Your task to perform on an android device: Check the news Image 0: 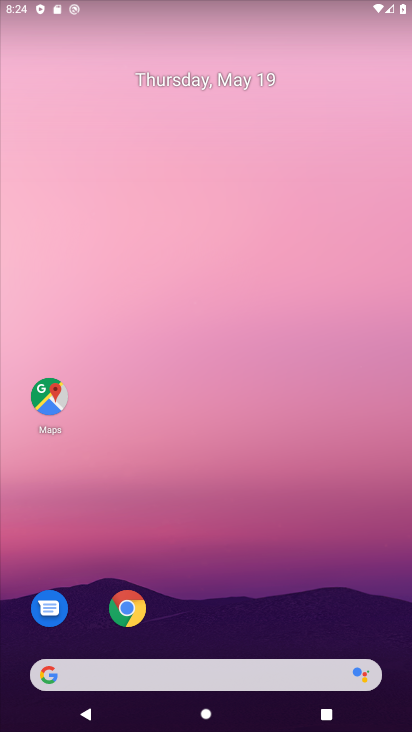
Step 0: drag from (299, 703) to (165, 38)
Your task to perform on an android device: Check the news Image 1: 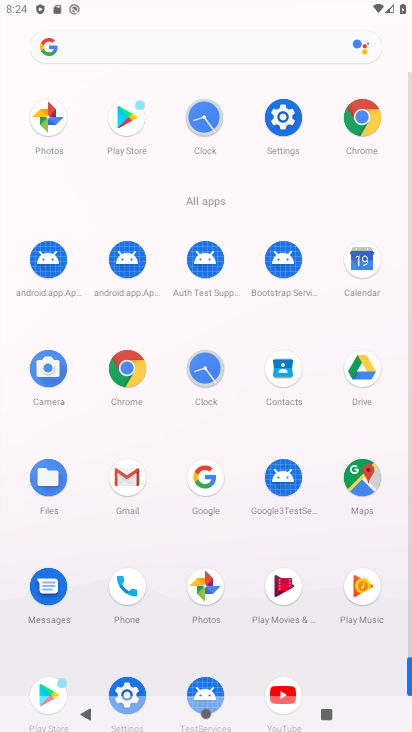
Step 1: press back button
Your task to perform on an android device: Check the news Image 2: 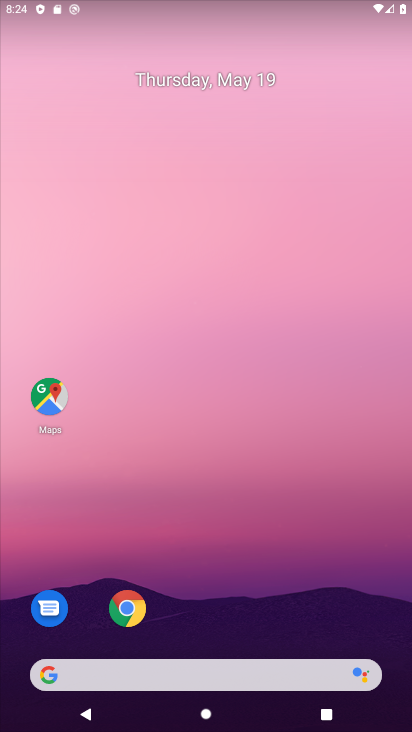
Step 2: drag from (23, 227) to (376, 402)
Your task to perform on an android device: Check the news Image 3: 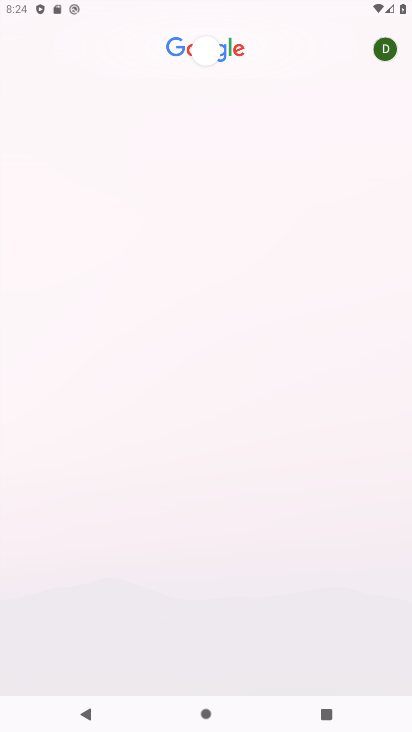
Step 3: drag from (5, 208) to (403, 518)
Your task to perform on an android device: Check the news Image 4: 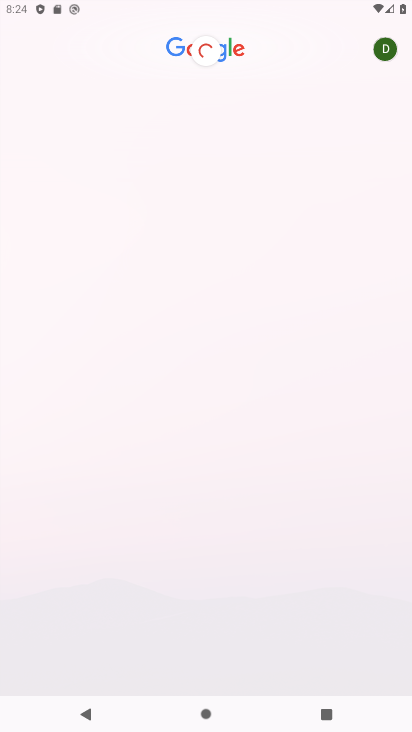
Step 4: drag from (241, 358) to (374, 419)
Your task to perform on an android device: Check the news Image 5: 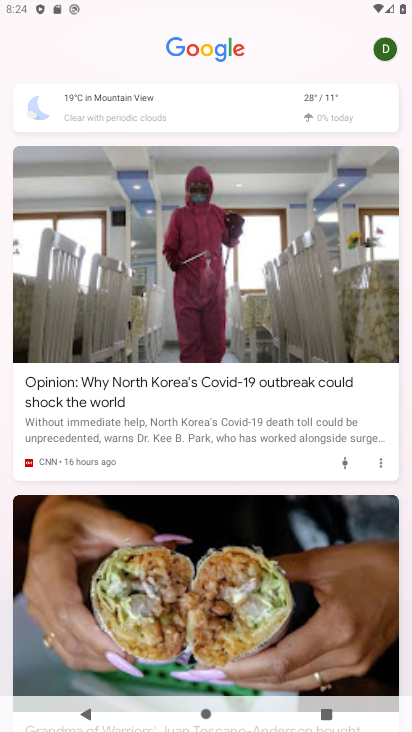
Step 5: drag from (161, 530) to (139, 36)
Your task to perform on an android device: Check the news Image 6: 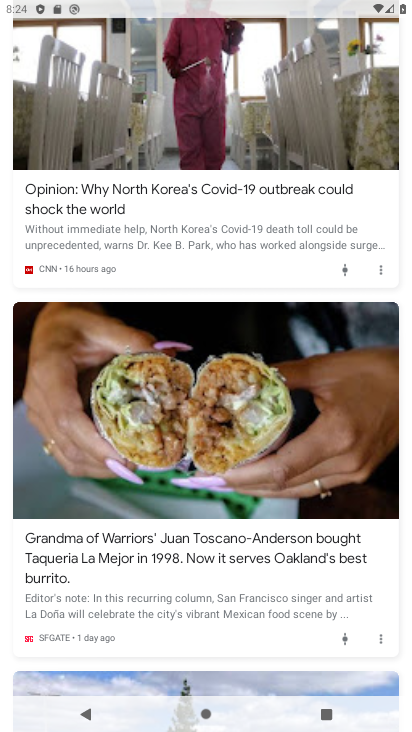
Step 6: drag from (182, 355) to (182, 138)
Your task to perform on an android device: Check the news Image 7: 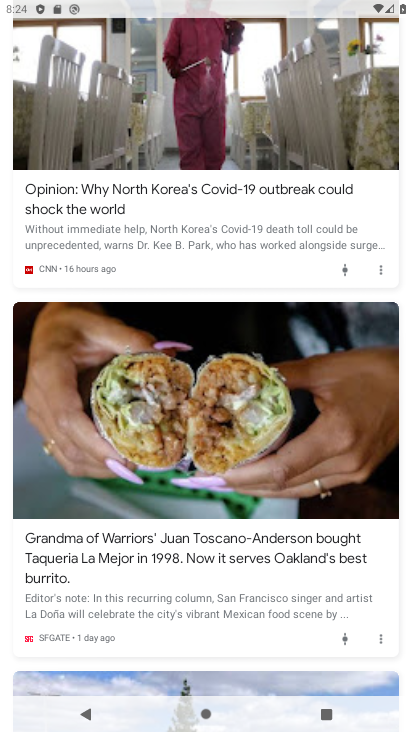
Step 7: drag from (240, 592) to (197, 234)
Your task to perform on an android device: Check the news Image 8: 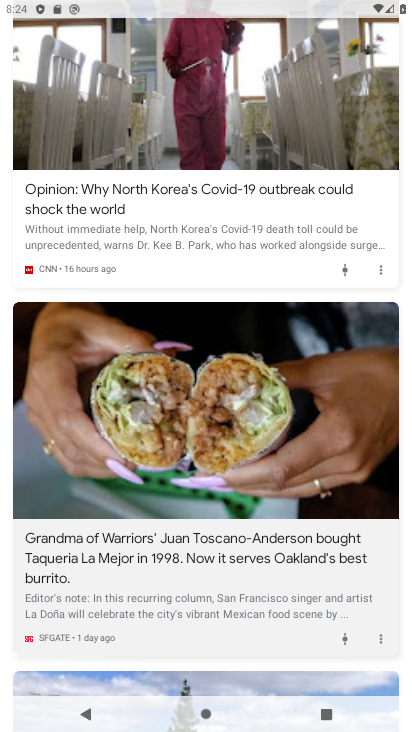
Step 8: drag from (240, 582) to (163, 249)
Your task to perform on an android device: Check the news Image 9: 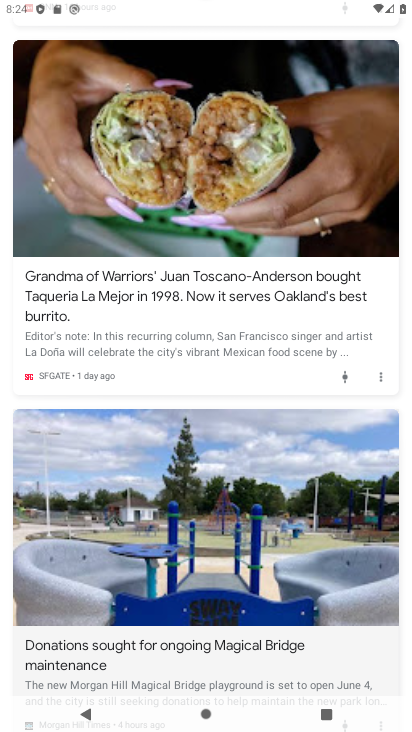
Step 9: drag from (165, 518) to (169, 282)
Your task to perform on an android device: Check the news Image 10: 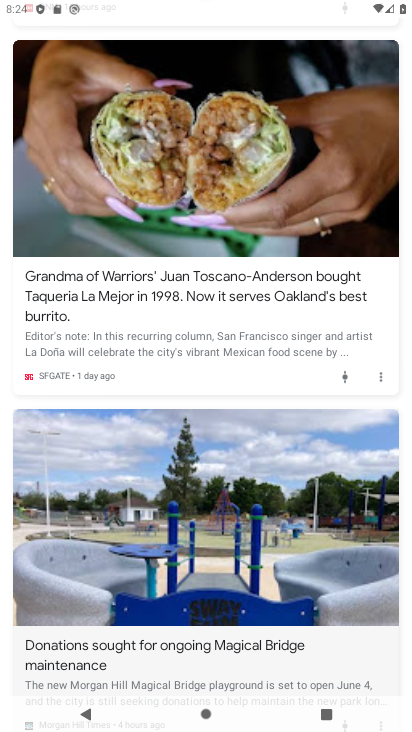
Step 10: drag from (246, 524) to (246, 217)
Your task to perform on an android device: Check the news Image 11: 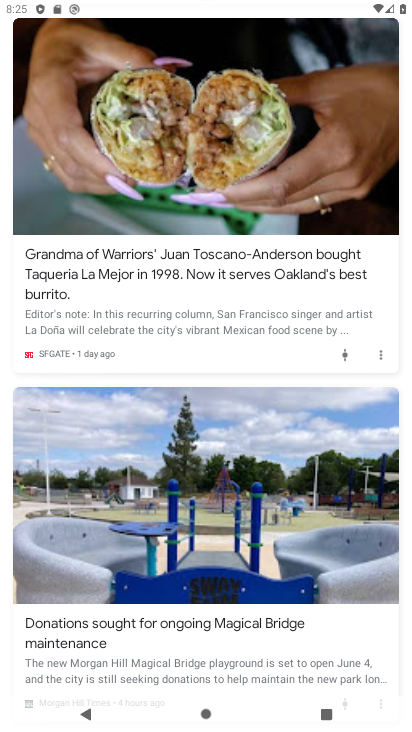
Step 11: drag from (168, 595) to (175, 132)
Your task to perform on an android device: Check the news Image 12: 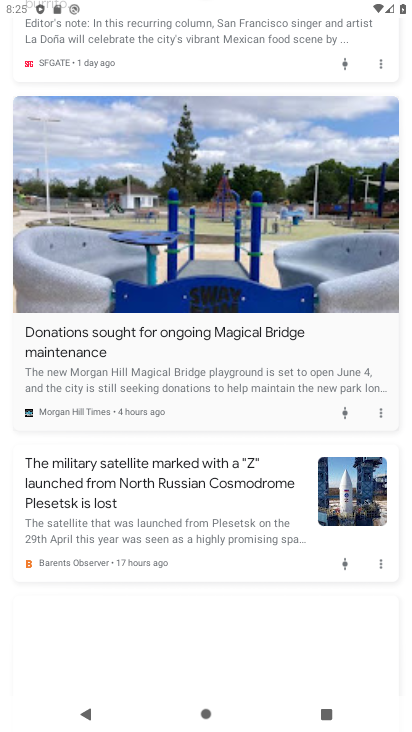
Step 12: click (202, 174)
Your task to perform on an android device: Check the news Image 13: 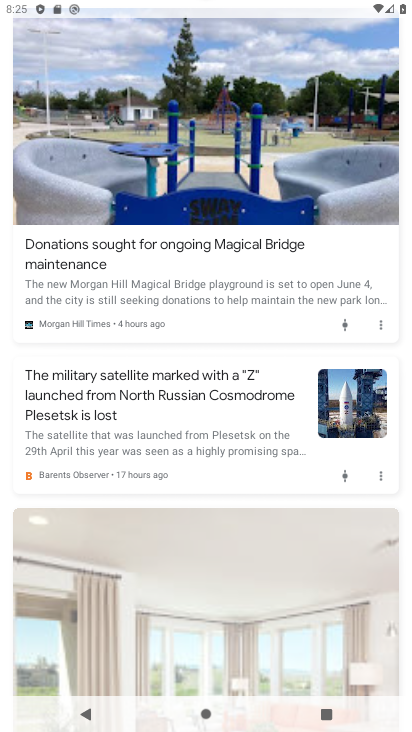
Step 13: task complete